Your task to perform on an android device: change the upload size in google photos Image 0: 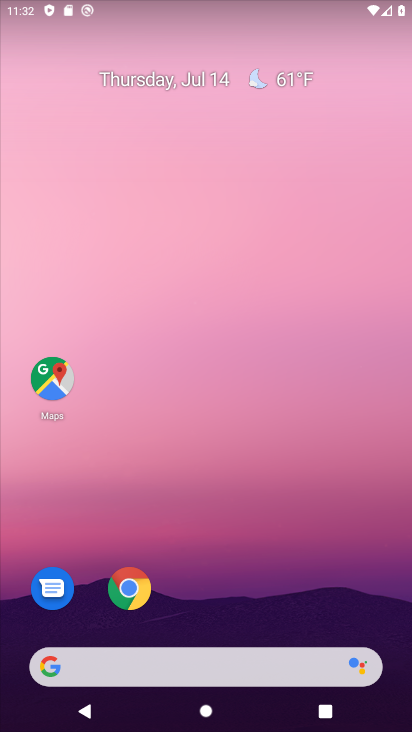
Step 0: drag from (158, 631) to (270, 61)
Your task to perform on an android device: change the upload size in google photos Image 1: 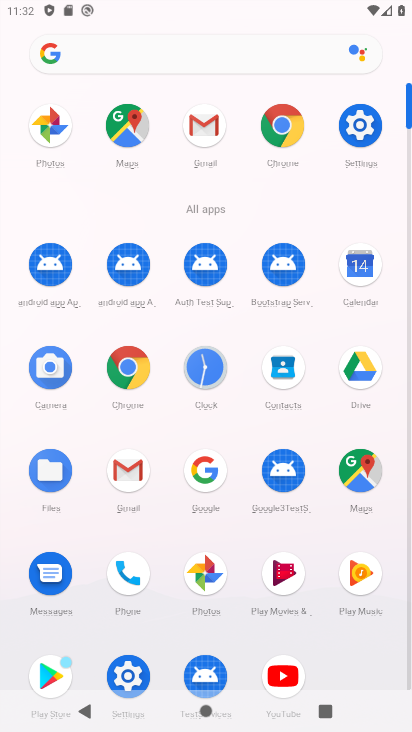
Step 1: click (214, 590)
Your task to perform on an android device: change the upload size in google photos Image 2: 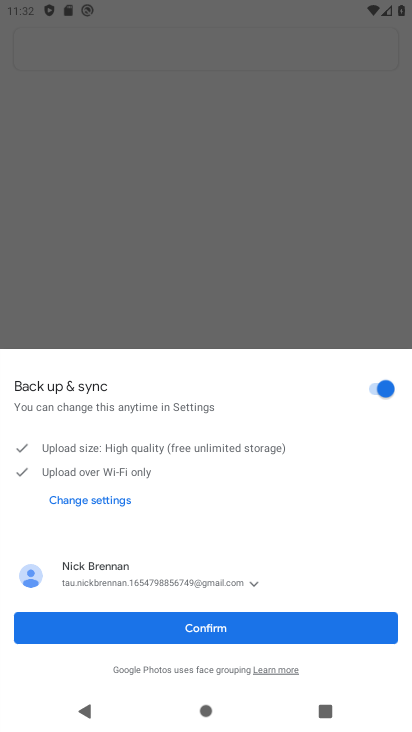
Step 2: click (196, 625)
Your task to perform on an android device: change the upload size in google photos Image 3: 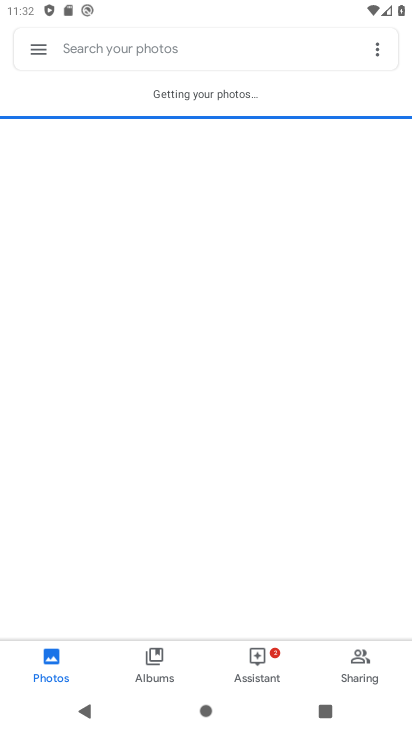
Step 3: click (42, 44)
Your task to perform on an android device: change the upload size in google photos Image 4: 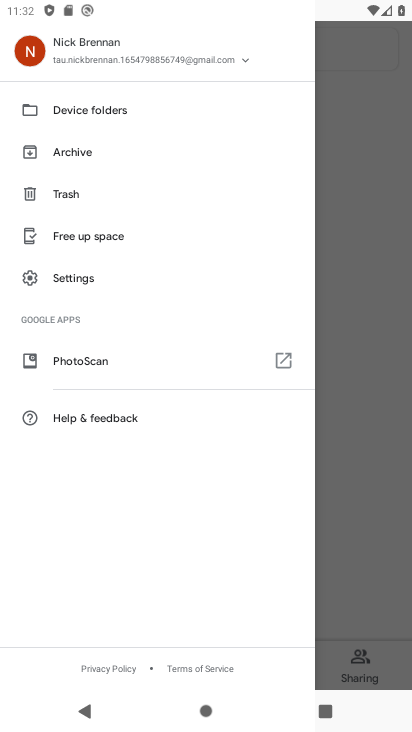
Step 4: click (109, 288)
Your task to perform on an android device: change the upload size in google photos Image 5: 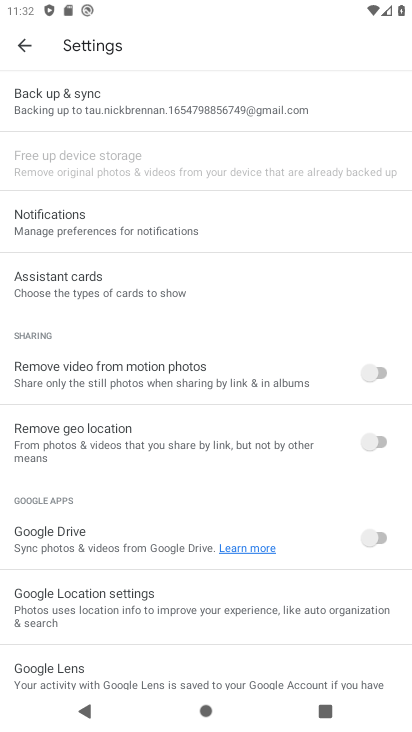
Step 5: click (164, 129)
Your task to perform on an android device: change the upload size in google photos Image 6: 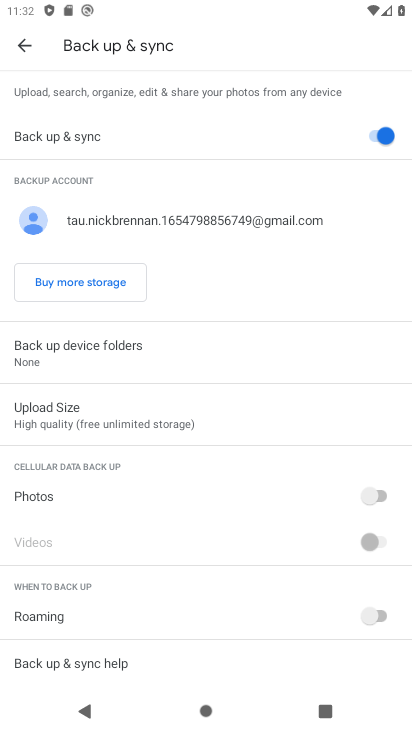
Step 6: click (84, 420)
Your task to perform on an android device: change the upload size in google photos Image 7: 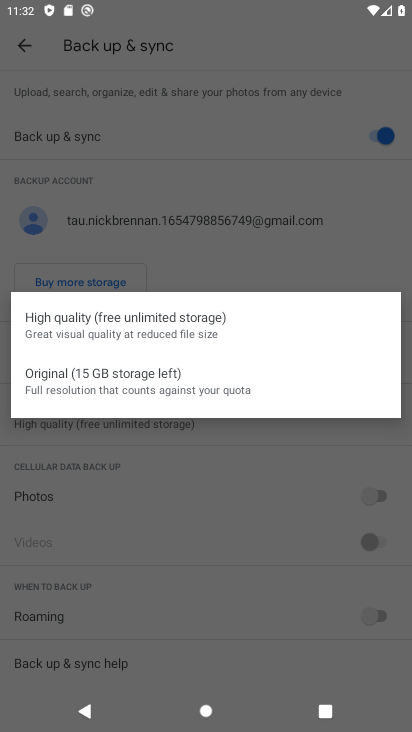
Step 7: click (123, 373)
Your task to perform on an android device: change the upload size in google photos Image 8: 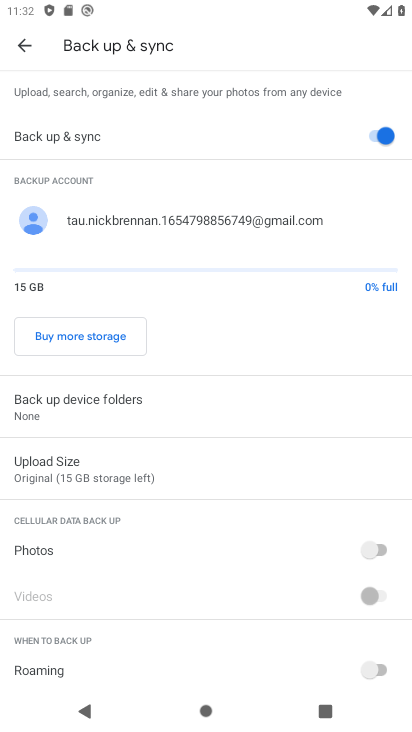
Step 8: task complete